Your task to perform on an android device: Open the stopwatch Image 0: 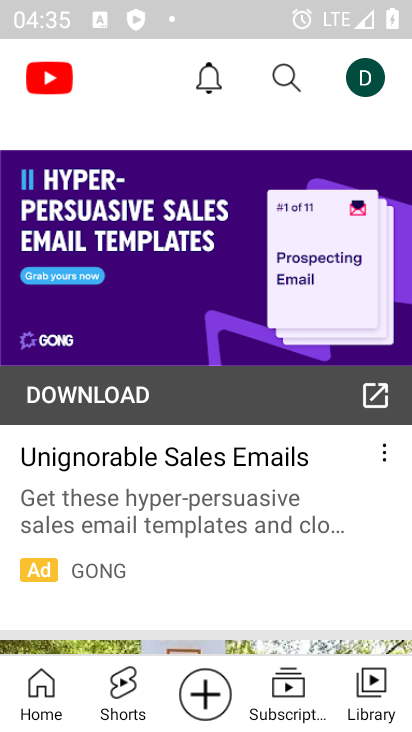
Step 0: press home button
Your task to perform on an android device: Open the stopwatch Image 1: 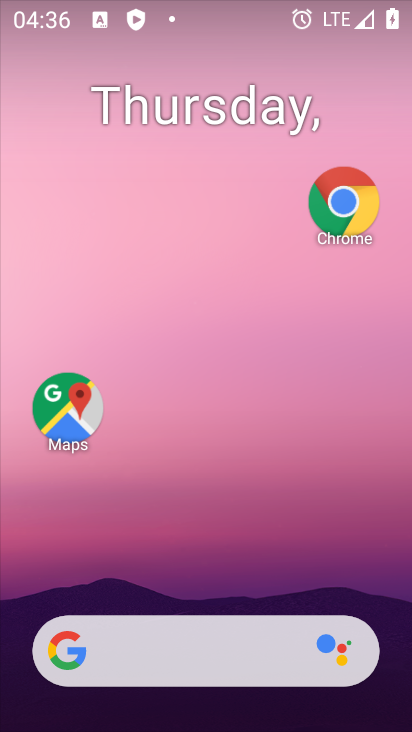
Step 1: drag from (192, 580) to (205, 93)
Your task to perform on an android device: Open the stopwatch Image 2: 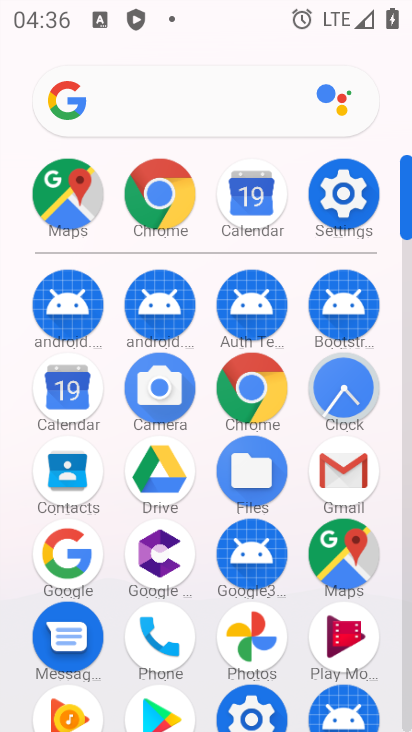
Step 2: click (358, 384)
Your task to perform on an android device: Open the stopwatch Image 3: 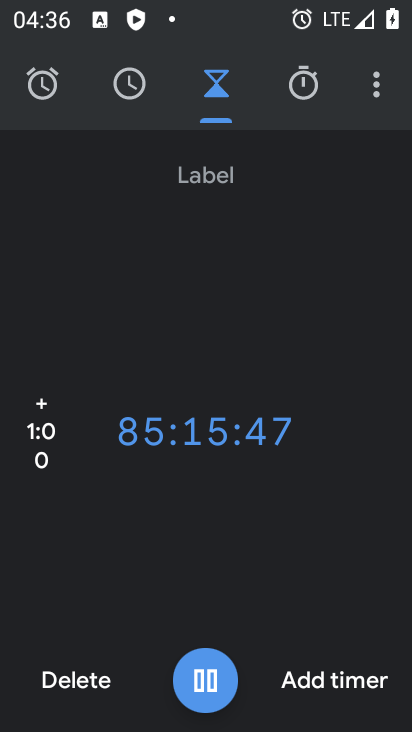
Step 3: click (45, 69)
Your task to perform on an android device: Open the stopwatch Image 4: 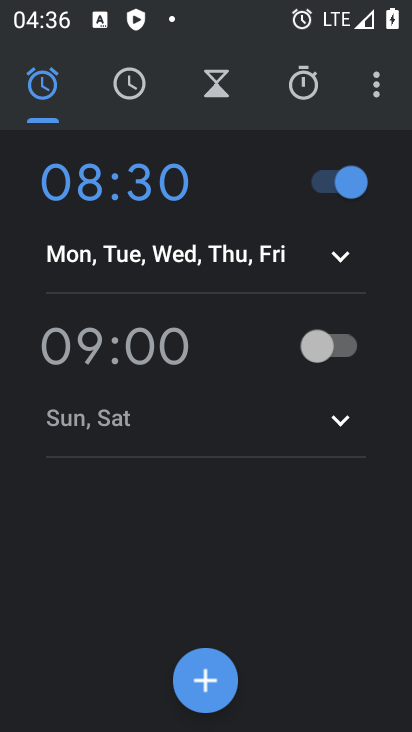
Step 4: click (311, 95)
Your task to perform on an android device: Open the stopwatch Image 5: 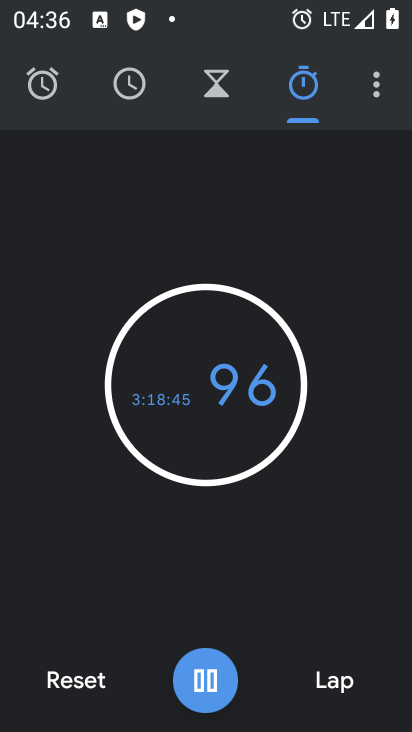
Step 5: task complete